Your task to perform on an android device: change the upload size in google photos Image 0: 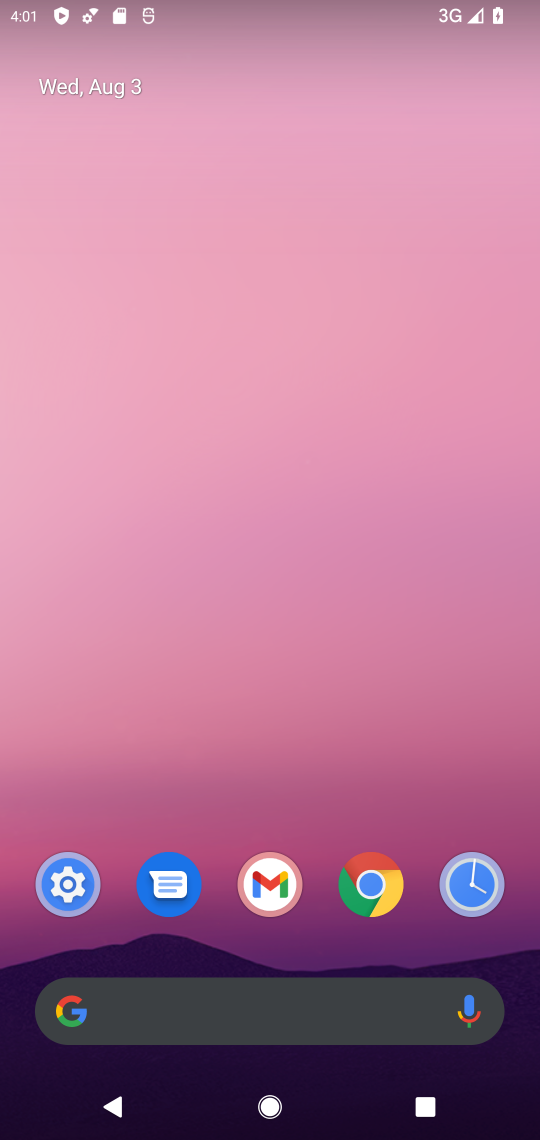
Step 0: drag from (325, 909) to (411, 221)
Your task to perform on an android device: change the upload size in google photos Image 1: 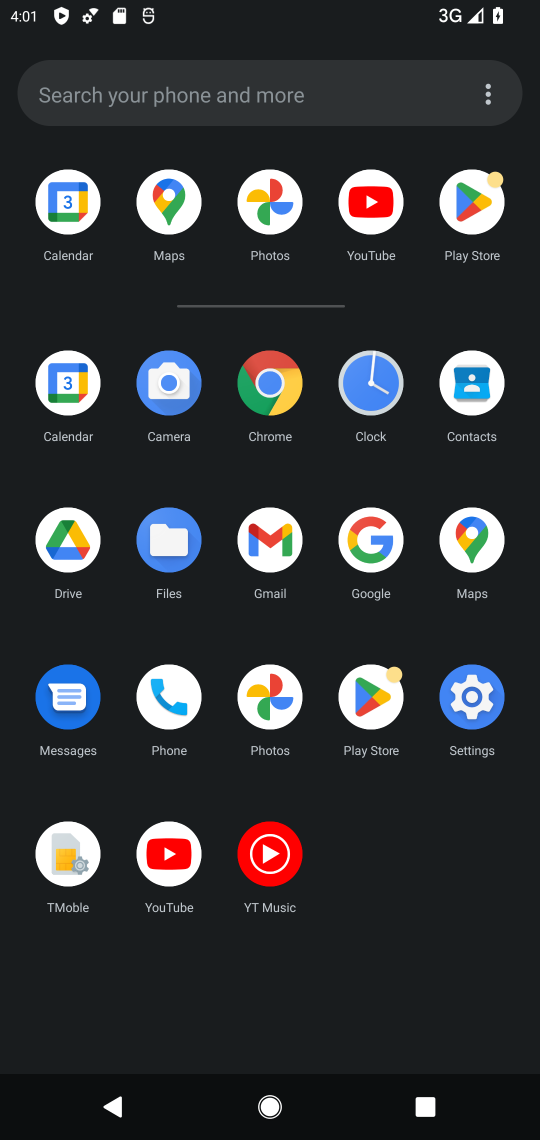
Step 1: click (253, 704)
Your task to perform on an android device: change the upload size in google photos Image 2: 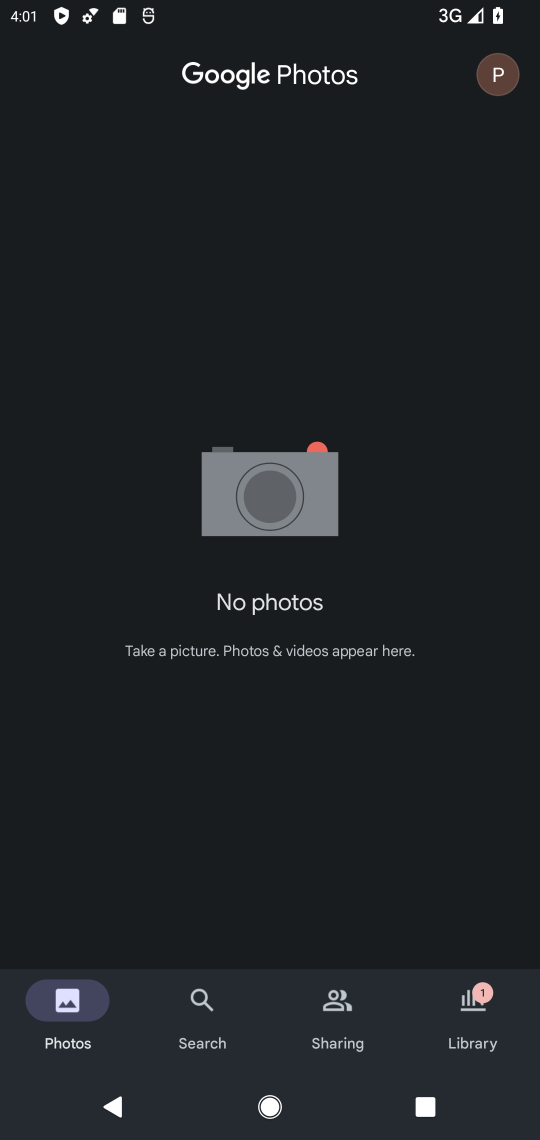
Step 2: task complete